Your task to perform on an android device: Go to Maps Image 0: 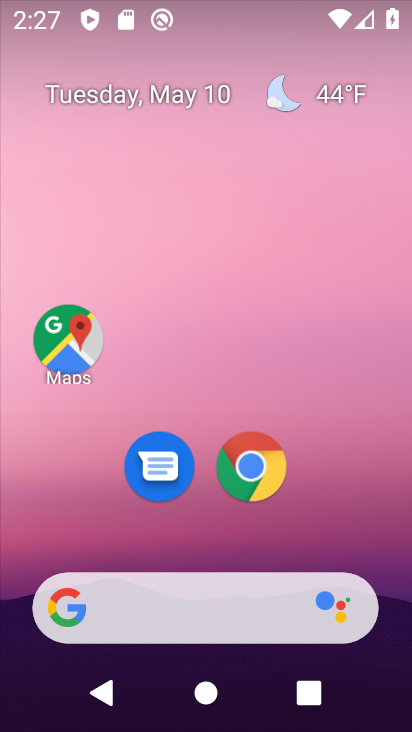
Step 0: click (69, 341)
Your task to perform on an android device: Go to Maps Image 1: 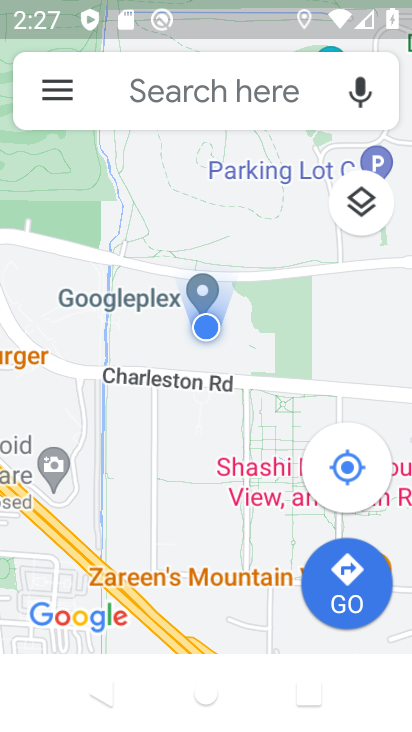
Step 1: task complete